Your task to perform on an android device: Open sound settings Image 0: 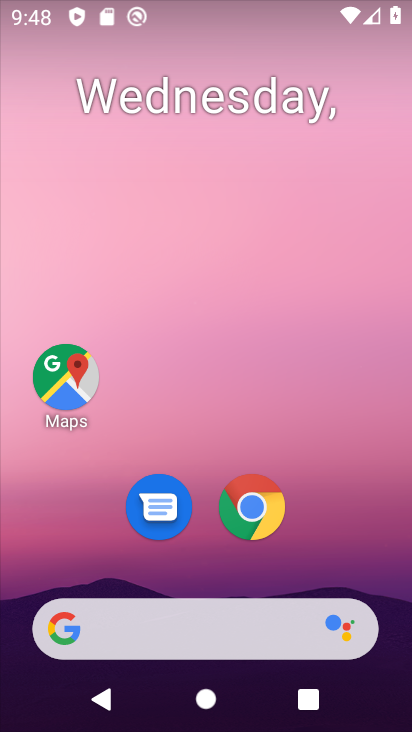
Step 0: drag from (227, 656) to (245, 124)
Your task to perform on an android device: Open sound settings Image 1: 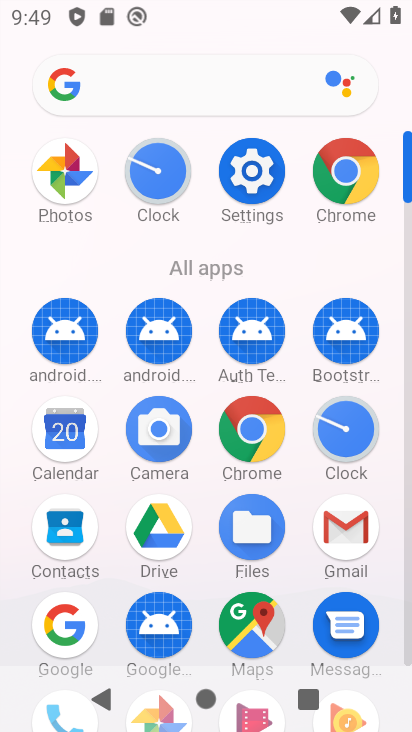
Step 1: click (250, 173)
Your task to perform on an android device: Open sound settings Image 2: 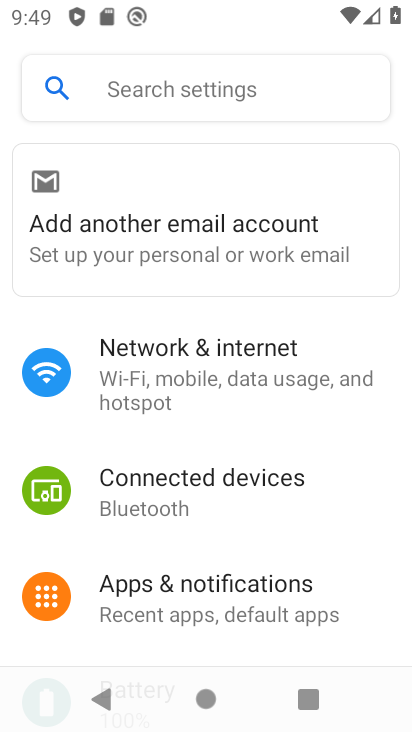
Step 2: click (207, 95)
Your task to perform on an android device: Open sound settings Image 3: 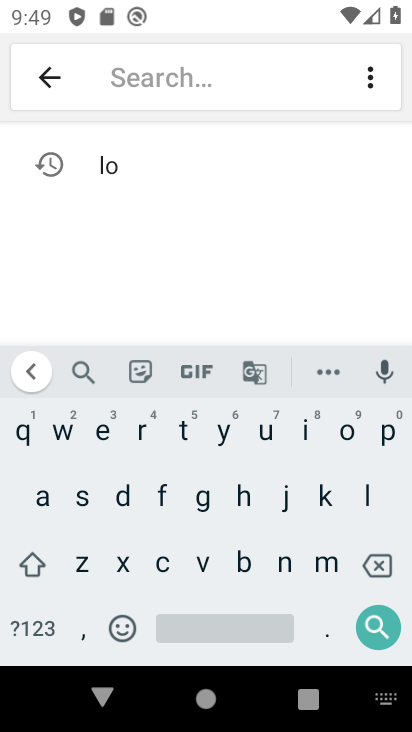
Step 3: click (87, 500)
Your task to perform on an android device: Open sound settings Image 4: 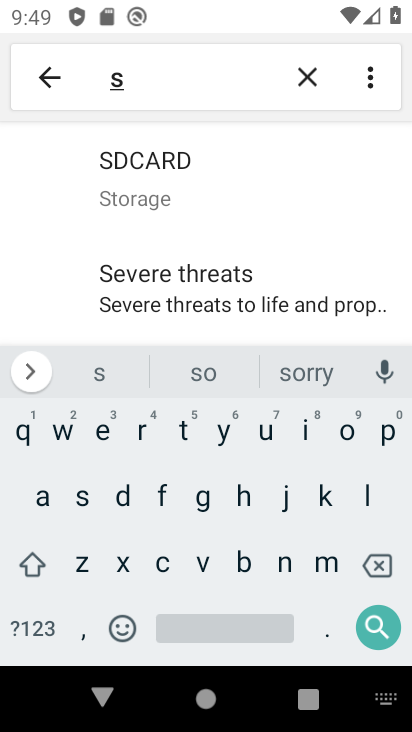
Step 4: click (348, 434)
Your task to perform on an android device: Open sound settings Image 5: 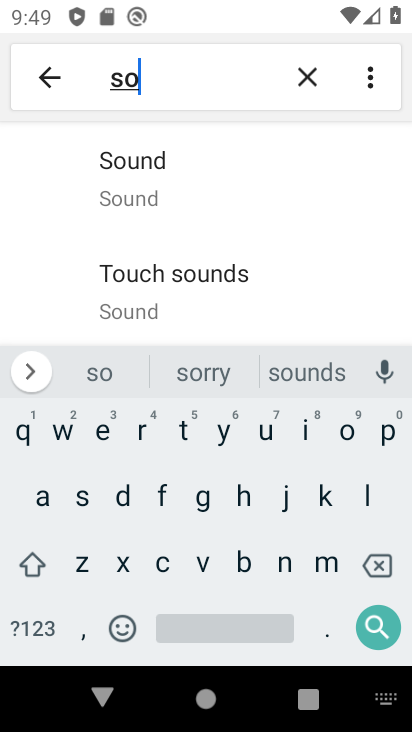
Step 5: click (181, 176)
Your task to perform on an android device: Open sound settings Image 6: 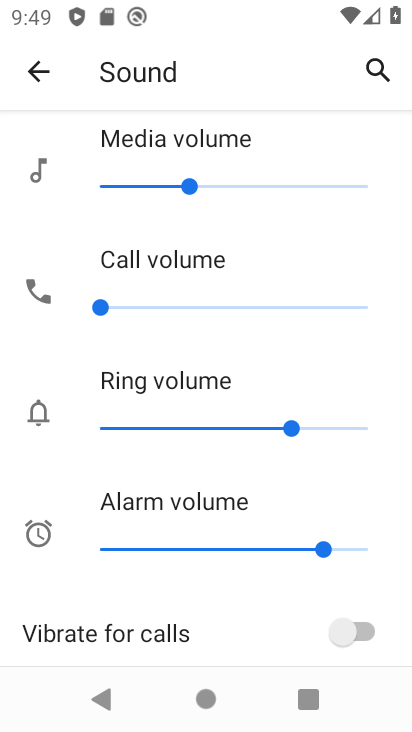
Step 6: task complete